Your task to perform on an android device: turn on wifi Image 0: 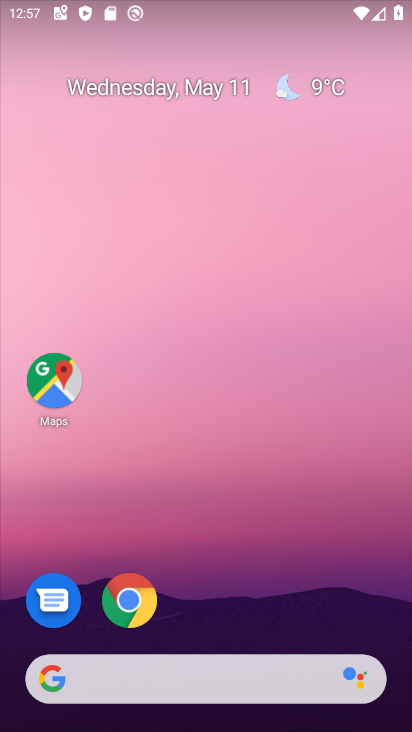
Step 0: drag from (228, 715) to (361, 12)
Your task to perform on an android device: turn on wifi Image 1: 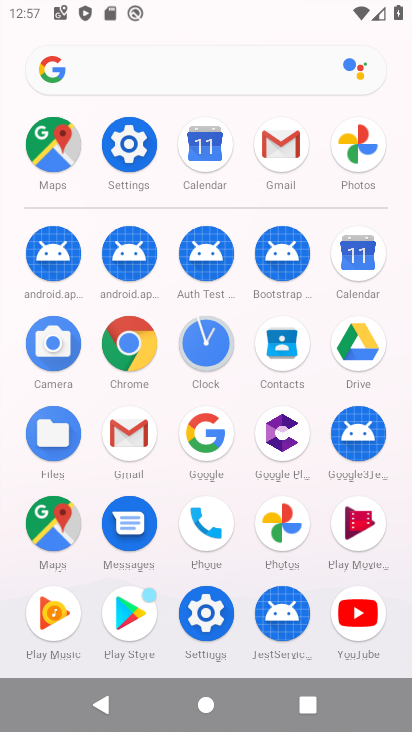
Step 1: click (128, 136)
Your task to perform on an android device: turn on wifi Image 2: 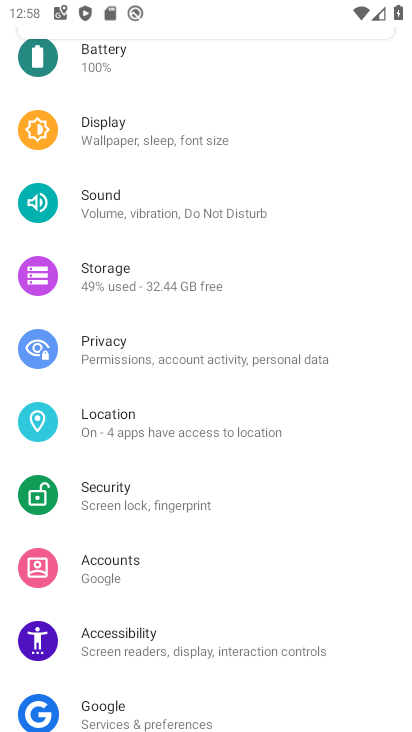
Step 2: drag from (211, 123) to (191, 667)
Your task to perform on an android device: turn on wifi Image 3: 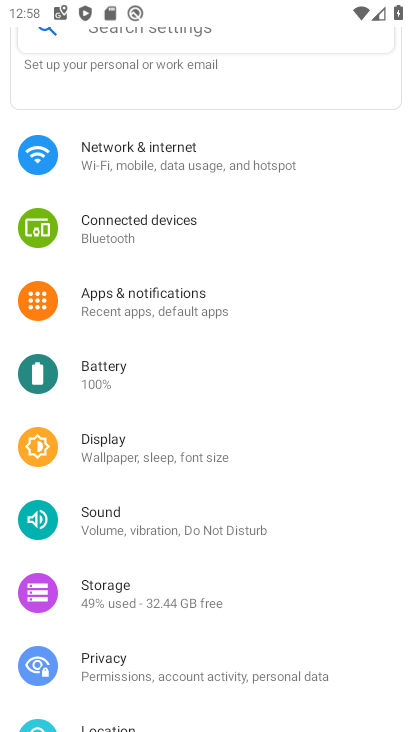
Step 3: click (272, 162)
Your task to perform on an android device: turn on wifi Image 4: 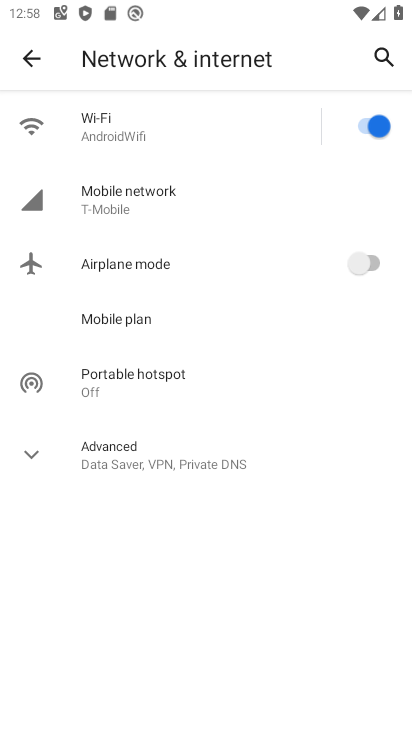
Step 4: task complete